Your task to perform on an android device: turn on translation in the chrome app Image 0: 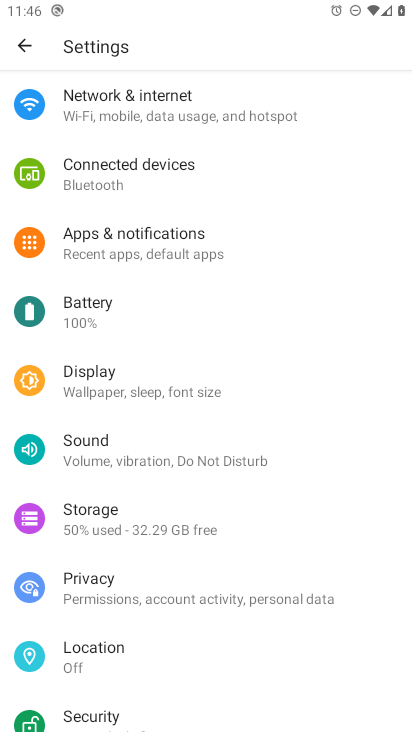
Step 0: press home button
Your task to perform on an android device: turn on translation in the chrome app Image 1: 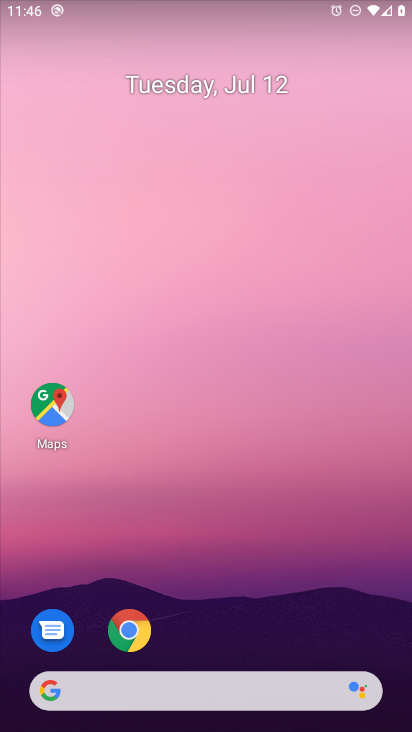
Step 1: click (125, 632)
Your task to perform on an android device: turn on translation in the chrome app Image 2: 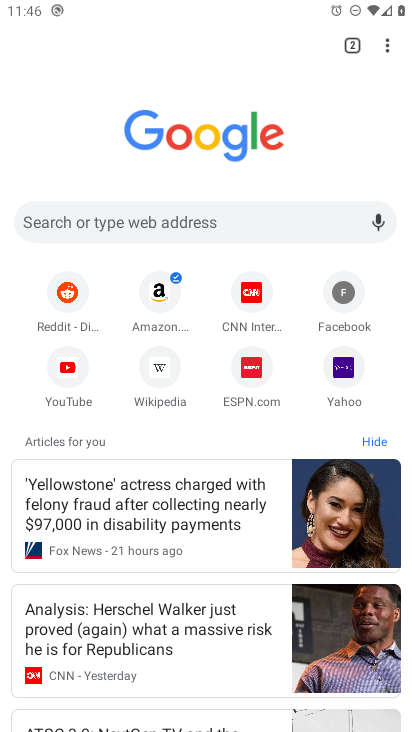
Step 2: drag from (385, 43) to (219, 389)
Your task to perform on an android device: turn on translation in the chrome app Image 3: 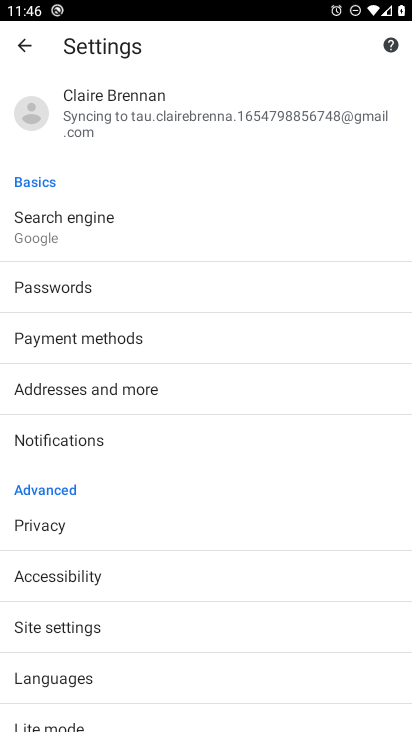
Step 3: click (71, 689)
Your task to perform on an android device: turn on translation in the chrome app Image 4: 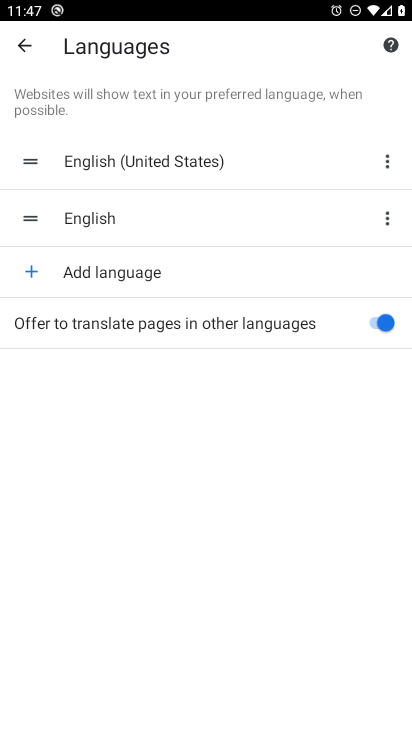
Step 4: task complete